Your task to perform on an android device: turn smart compose on in the gmail app Image 0: 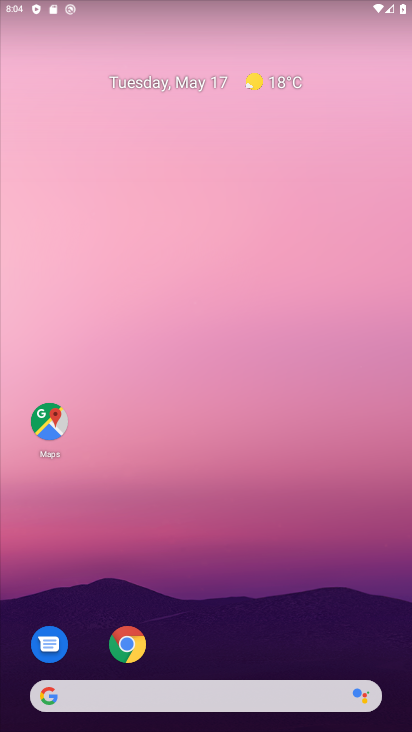
Step 0: drag from (176, 655) to (264, 48)
Your task to perform on an android device: turn smart compose on in the gmail app Image 1: 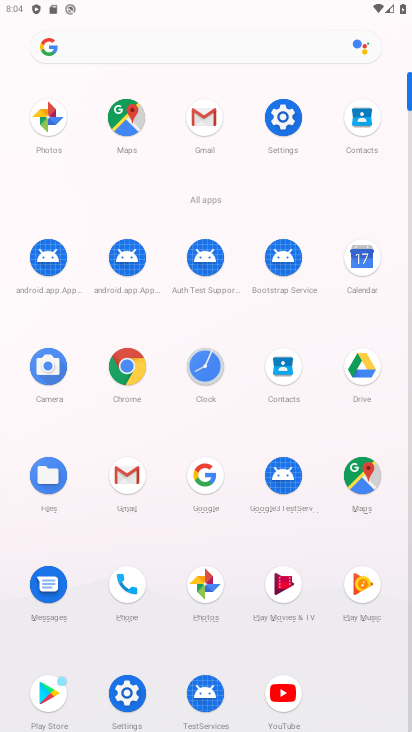
Step 1: click (211, 125)
Your task to perform on an android device: turn smart compose on in the gmail app Image 2: 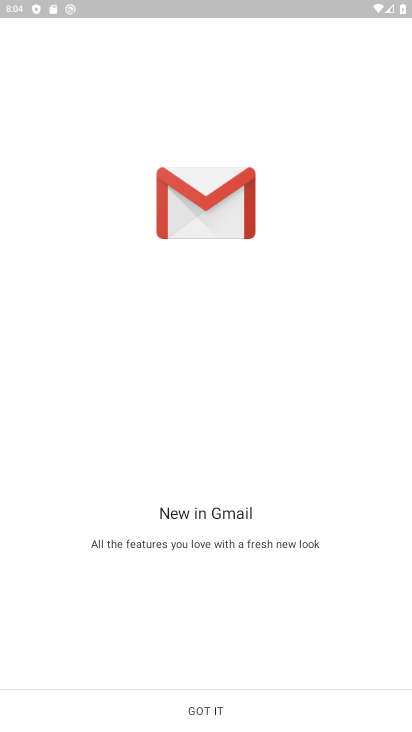
Step 2: click (209, 716)
Your task to perform on an android device: turn smart compose on in the gmail app Image 3: 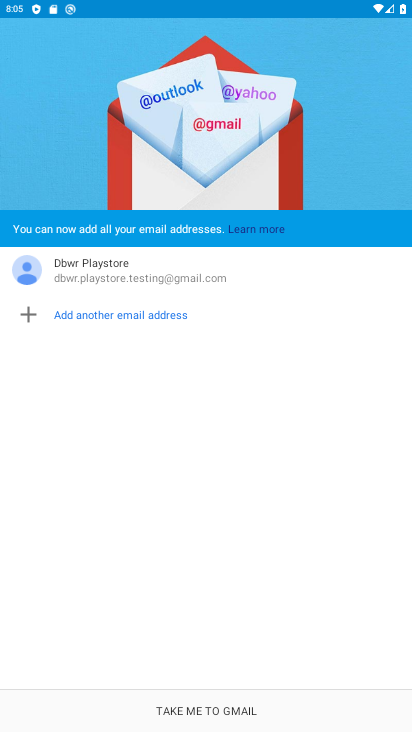
Step 3: click (208, 705)
Your task to perform on an android device: turn smart compose on in the gmail app Image 4: 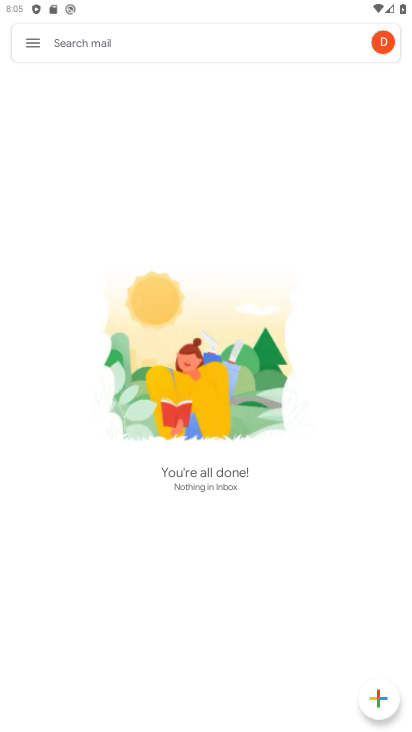
Step 4: click (27, 38)
Your task to perform on an android device: turn smart compose on in the gmail app Image 5: 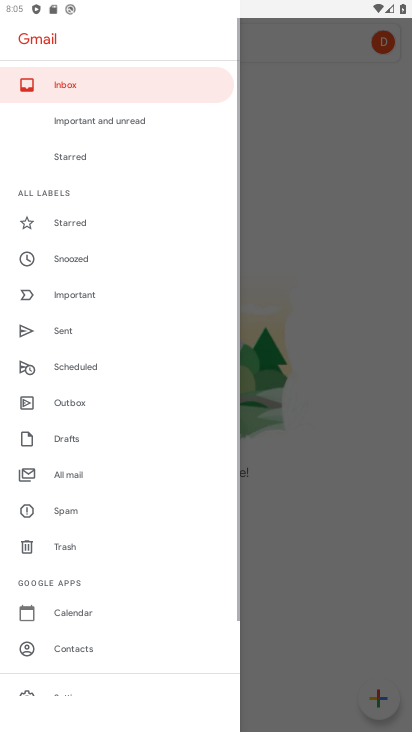
Step 5: drag from (131, 631) to (189, 6)
Your task to perform on an android device: turn smart compose on in the gmail app Image 6: 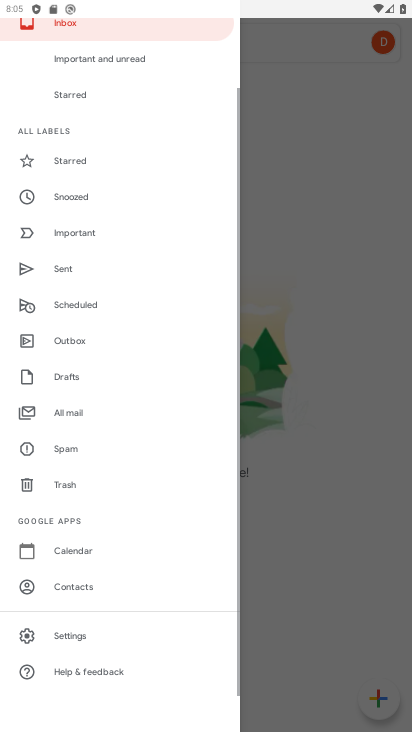
Step 6: click (70, 641)
Your task to perform on an android device: turn smart compose on in the gmail app Image 7: 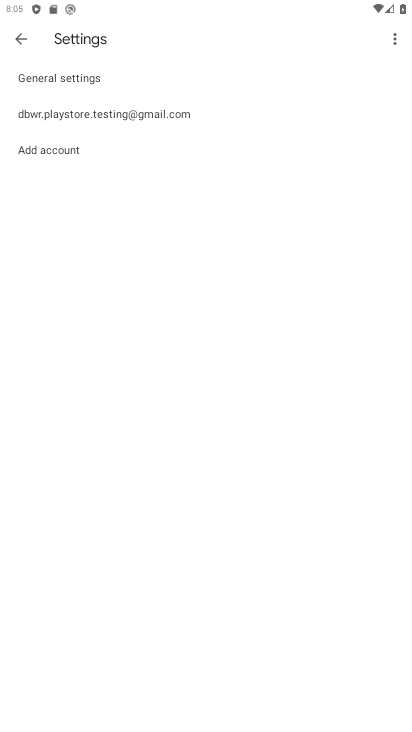
Step 7: click (96, 111)
Your task to perform on an android device: turn smart compose on in the gmail app Image 8: 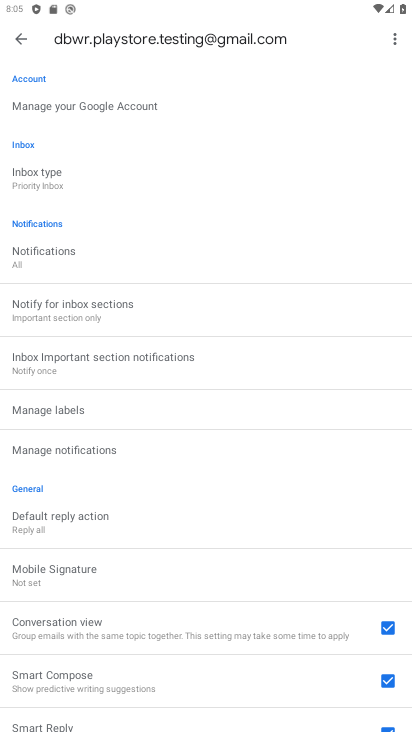
Step 8: task complete